Your task to perform on an android device: turn off translation in the chrome app Image 0: 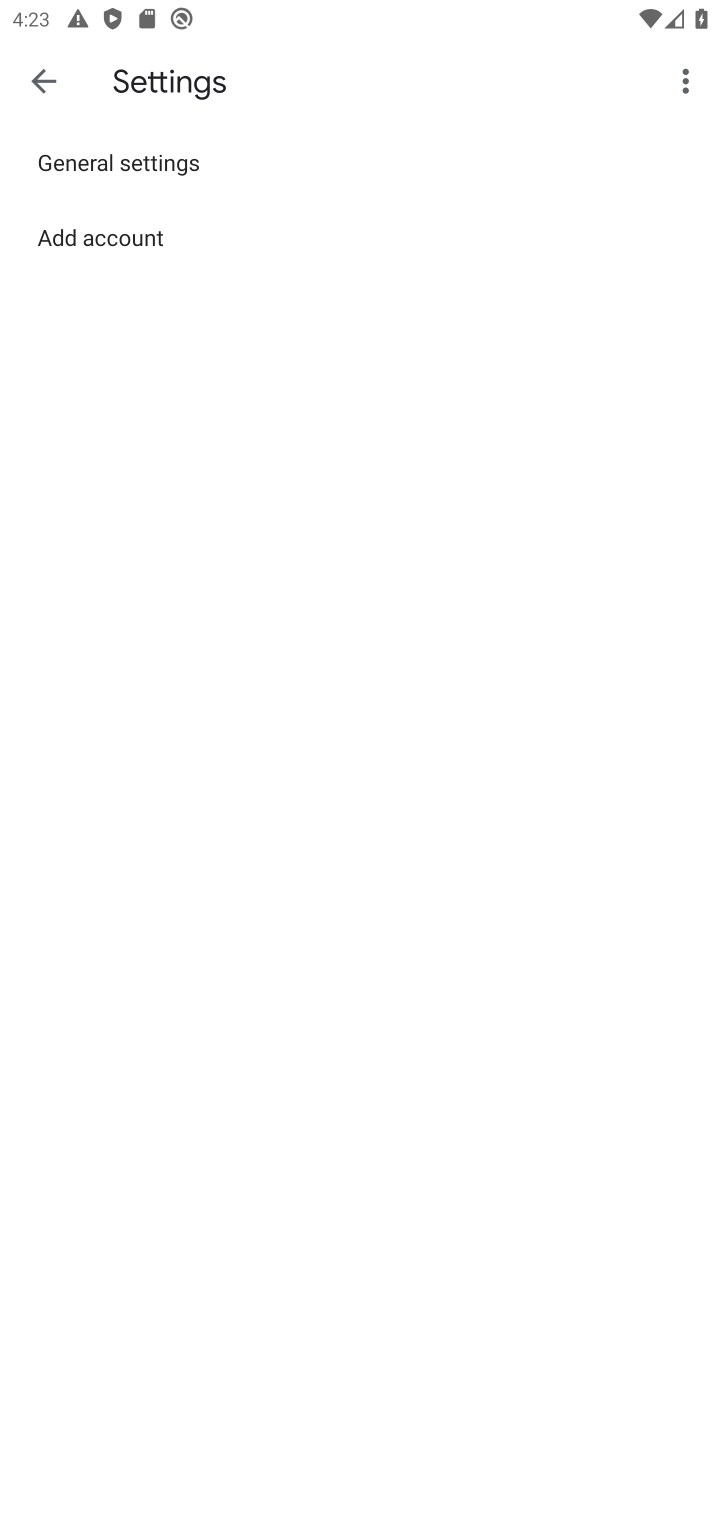
Step 0: press home button
Your task to perform on an android device: turn off translation in the chrome app Image 1: 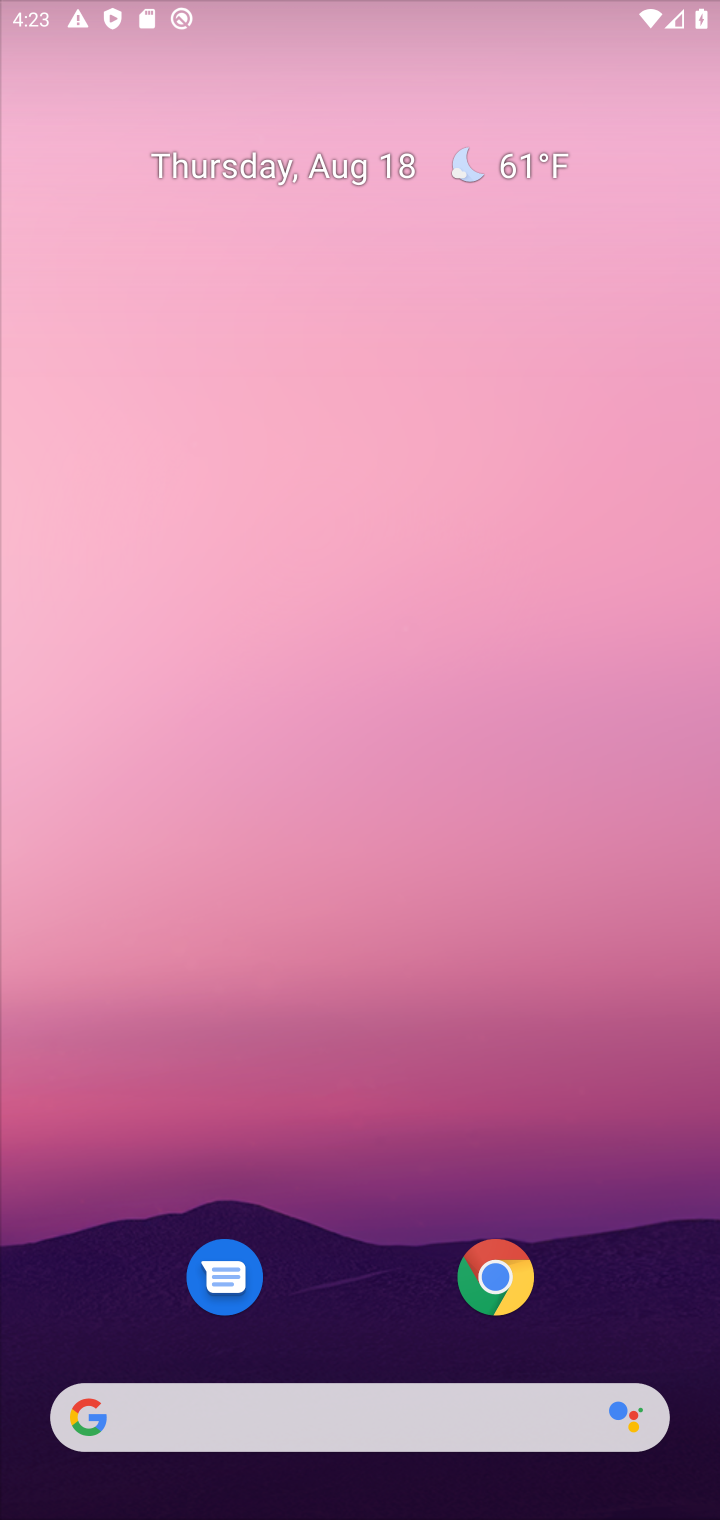
Step 1: task complete